Your task to perform on an android device: turn off translation in the chrome app Image 0: 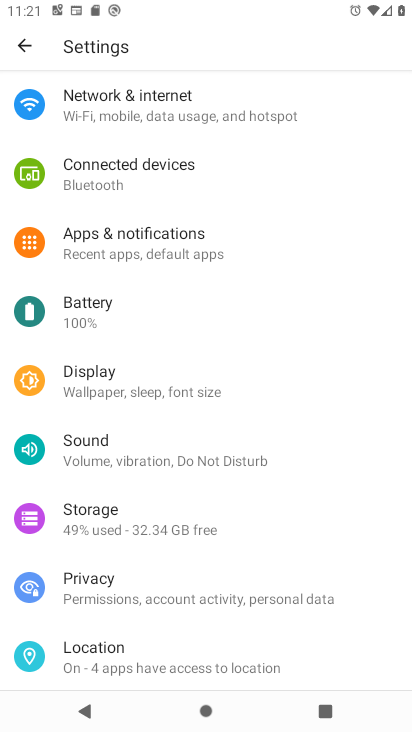
Step 0: press home button
Your task to perform on an android device: turn off translation in the chrome app Image 1: 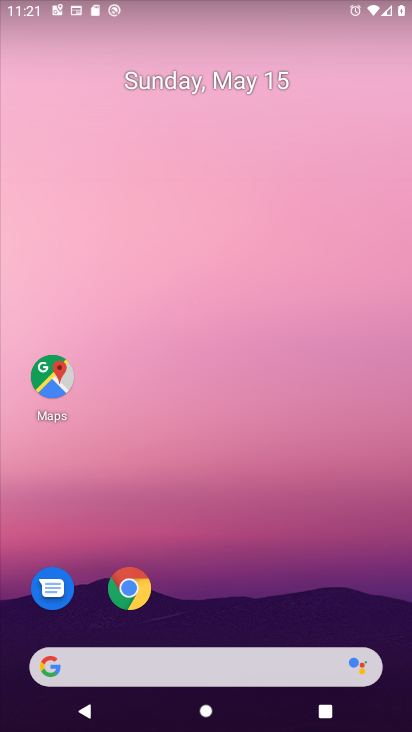
Step 1: click (125, 589)
Your task to perform on an android device: turn off translation in the chrome app Image 2: 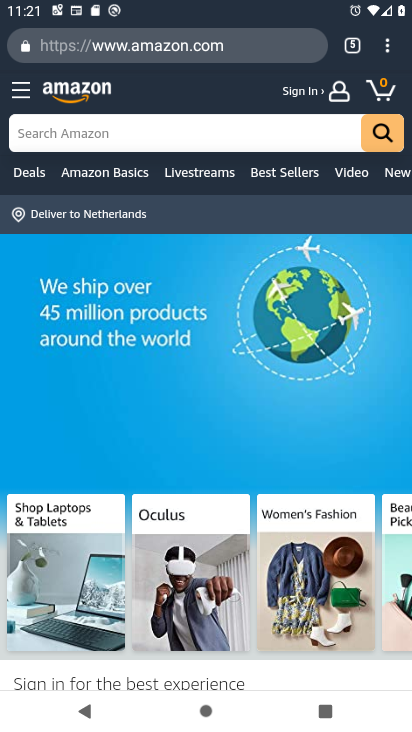
Step 2: click (393, 52)
Your task to perform on an android device: turn off translation in the chrome app Image 3: 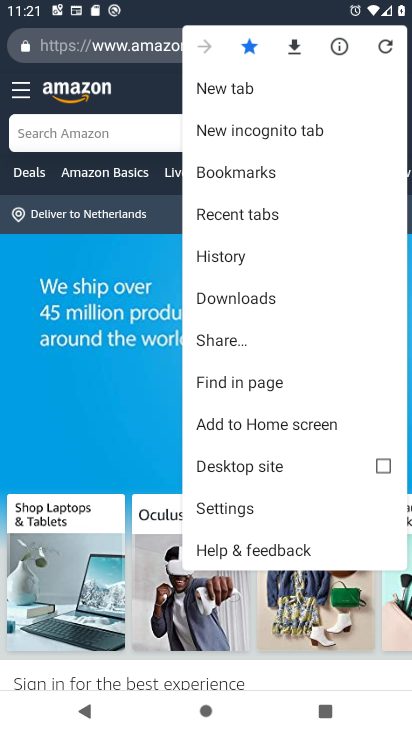
Step 3: click (253, 502)
Your task to perform on an android device: turn off translation in the chrome app Image 4: 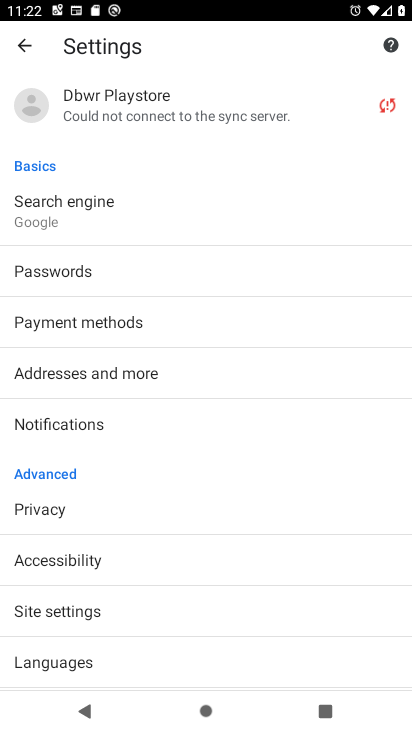
Step 4: click (73, 612)
Your task to perform on an android device: turn off translation in the chrome app Image 5: 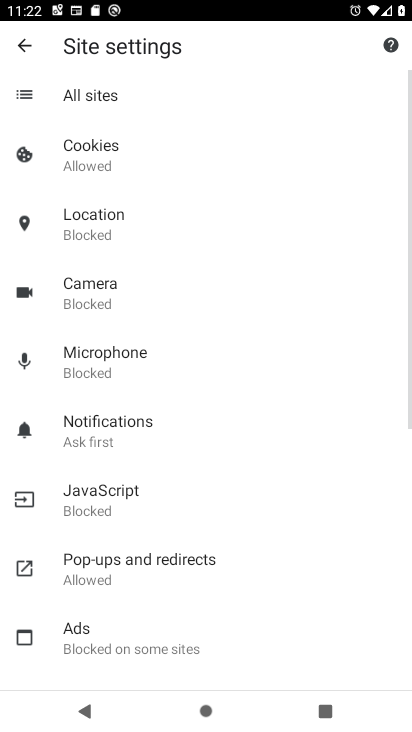
Step 5: click (30, 43)
Your task to perform on an android device: turn off translation in the chrome app Image 6: 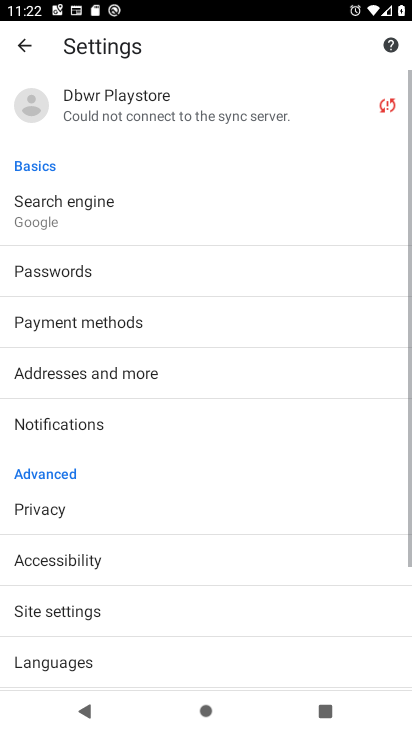
Step 6: click (112, 652)
Your task to perform on an android device: turn off translation in the chrome app Image 7: 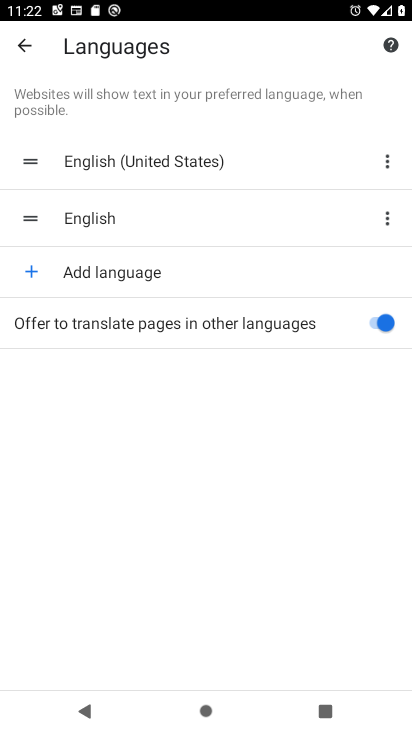
Step 7: click (377, 321)
Your task to perform on an android device: turn off translation in the chrome app Image 8: 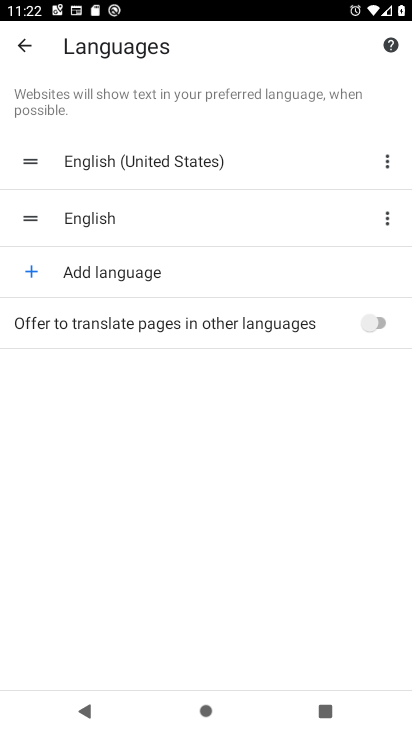
Step 8: task complete